Your task to perform on an android device: Search for the best way to make a resume. Image 0: 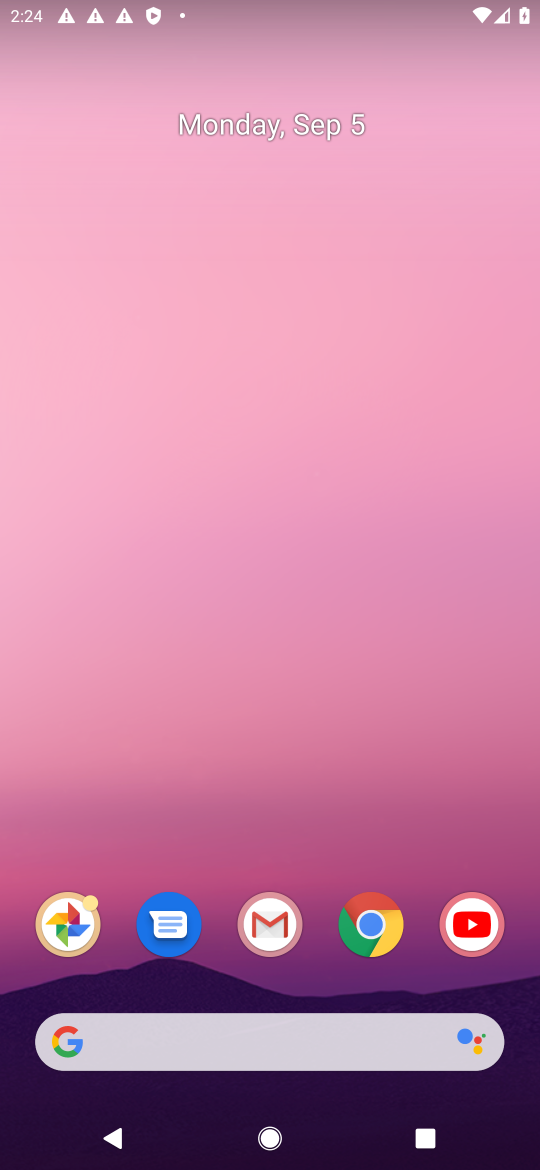
Step 0: drag from (379, 1032) to (41, 261)
Your task to perform on an android device: Search for the best way to make a resume. Image 1: 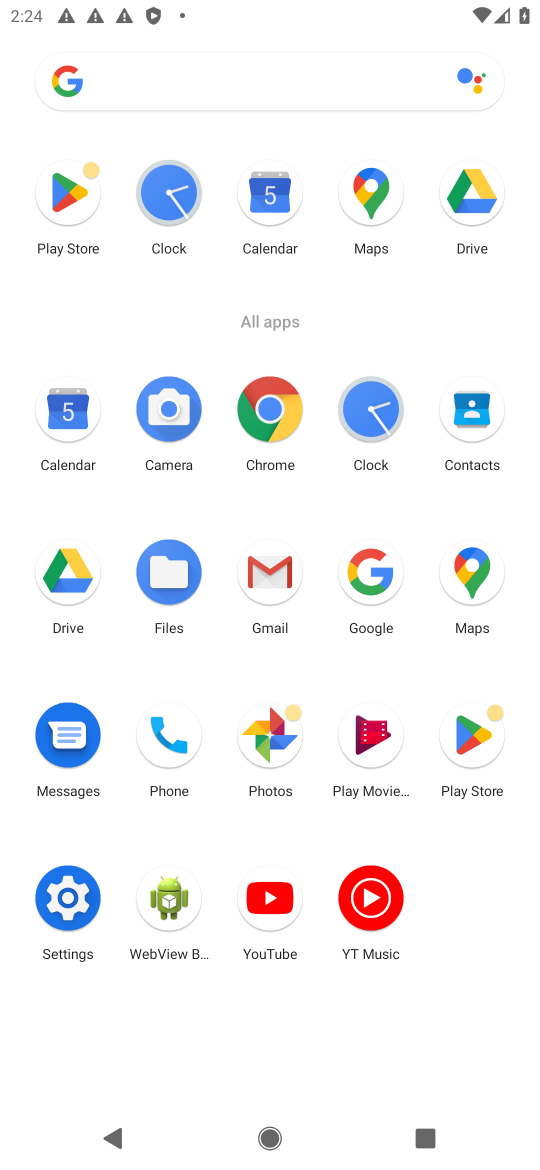
Step 1: click (278, 428)
Your task to perform on an android device: Search for the best way to make a resume. Image 2: 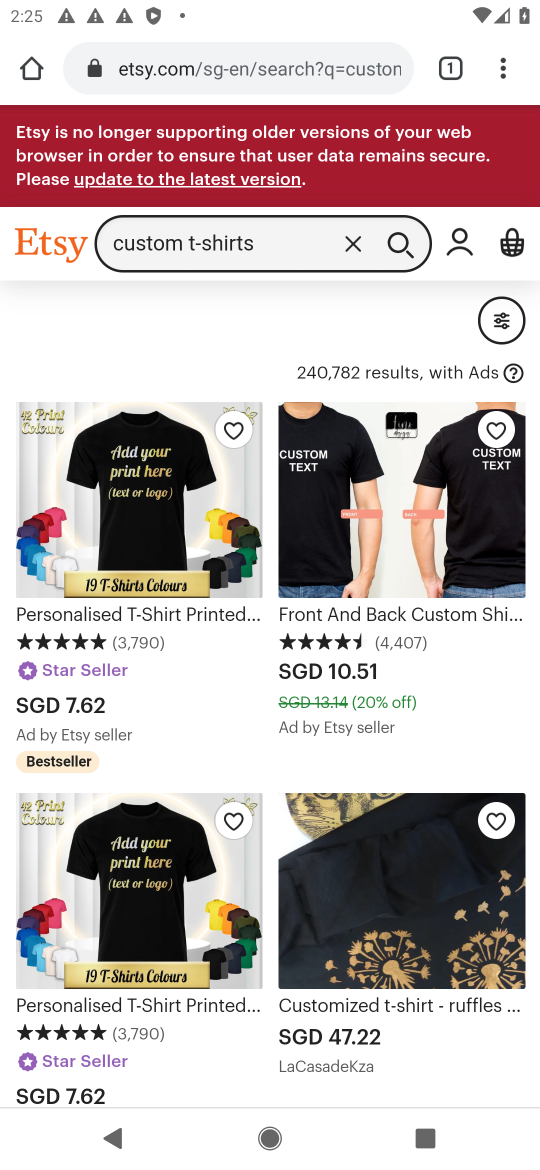
Step 2: click (298, 67)
Your task to perform on an android device: Search for the best way to make a resume. Image 3: 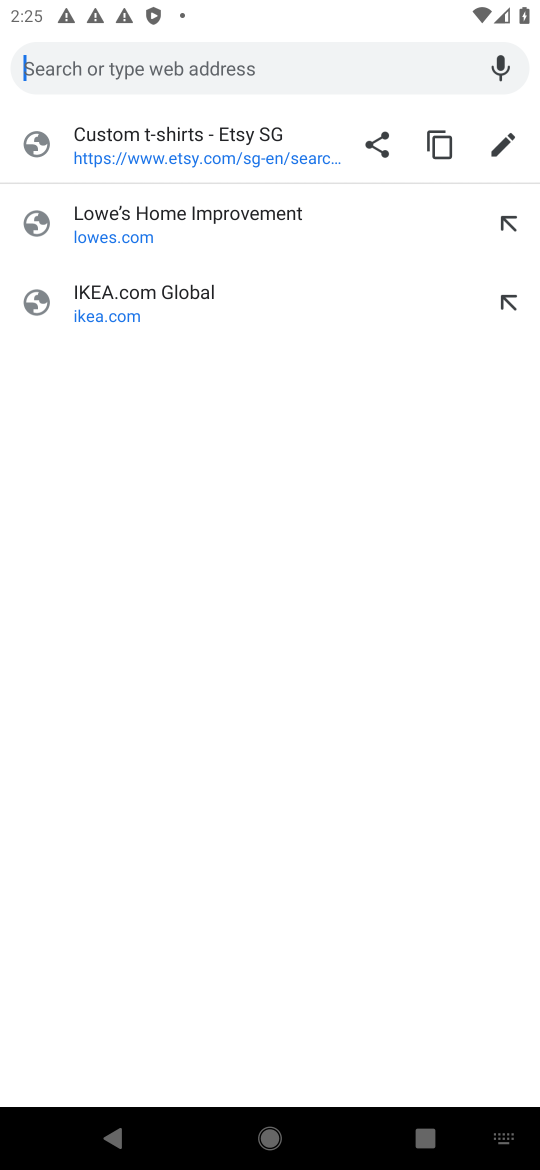
Step 3: type "best way to make a resume"
Your task to perform on an android device: Search for the best way to make a resume. Image 4: 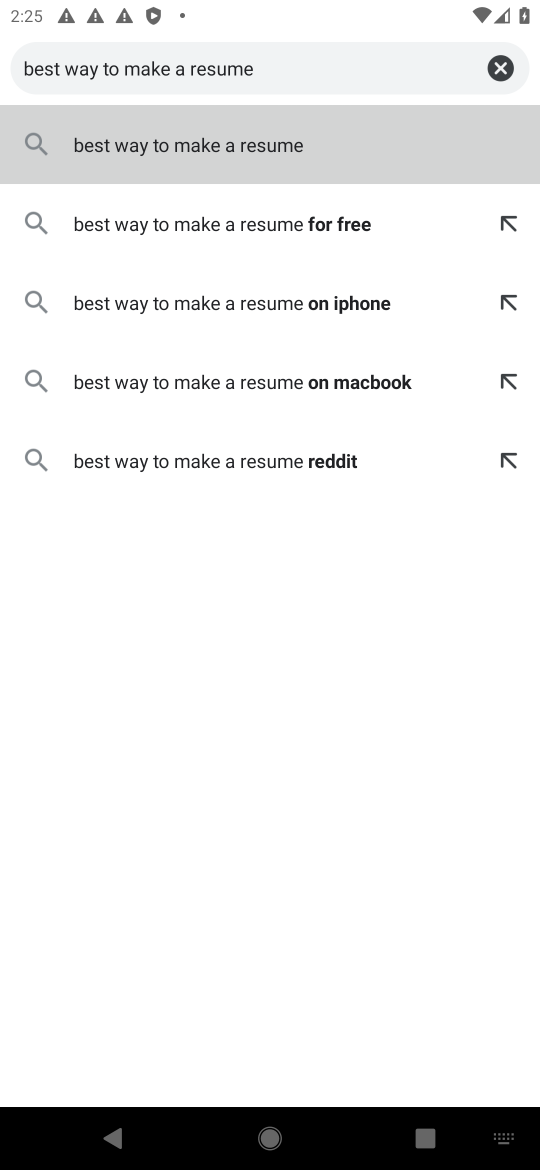
Step 4: click (355, 159)
Your task to perform on an android device: Search for the best way to make a resume. Image 5: 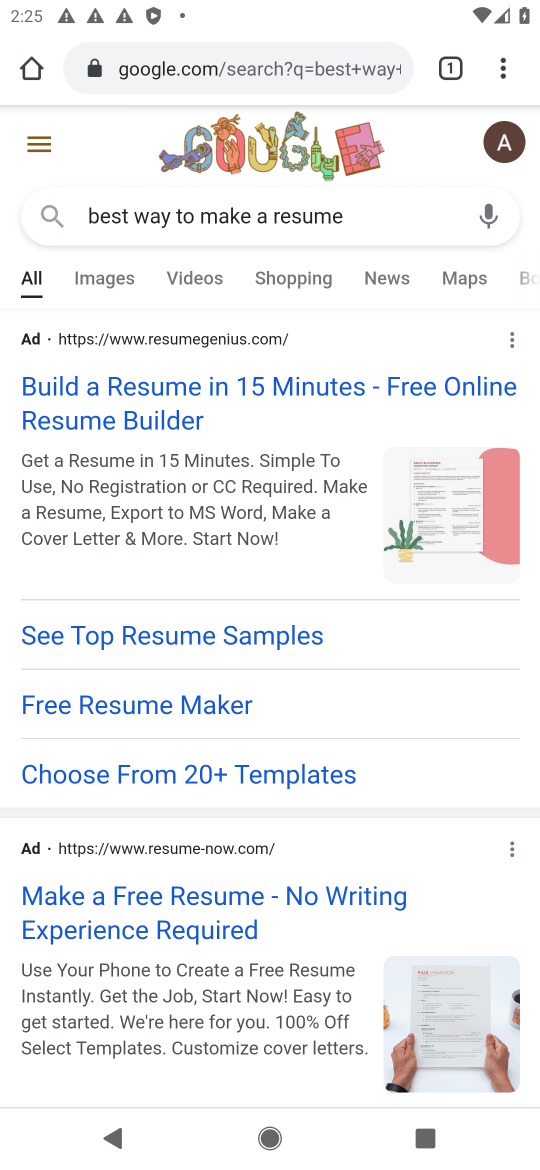
Step 5: task complete